Your task to perform on an android device: turn off translation in the chrome app Image 0: 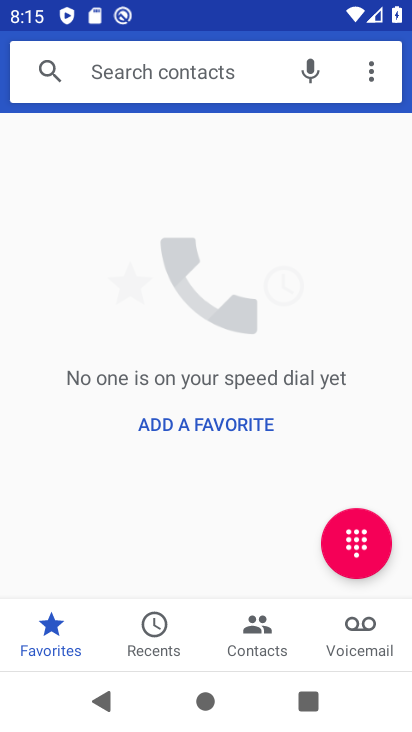
Step 0: press home button
Your task to perform on an android device: turn off translation in the chrome app Image 1: 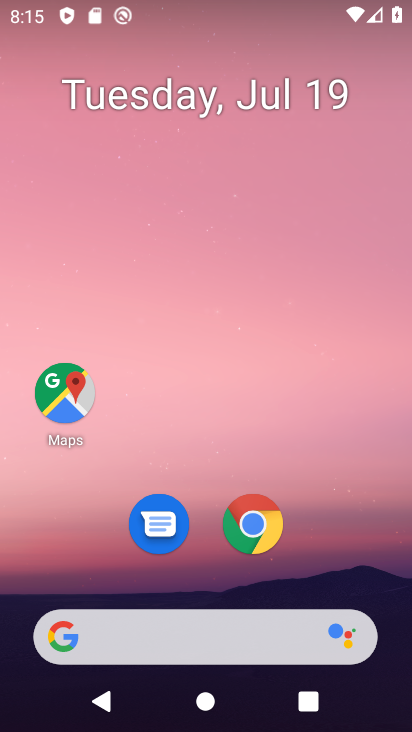
Step 1: click (251, 526)
Your task to perform on an android device: turn off translation in the chrome app Image 2: 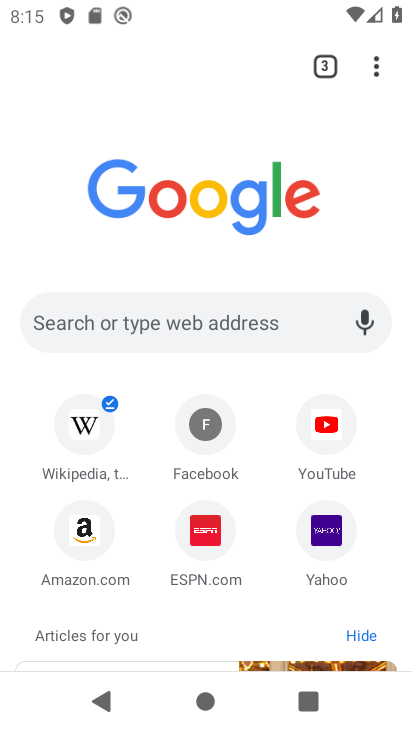
Step 2: drag from (375, 61) to (245, 559)
Your task to perform on an android device: turn off translation in the chrome app Image 3: 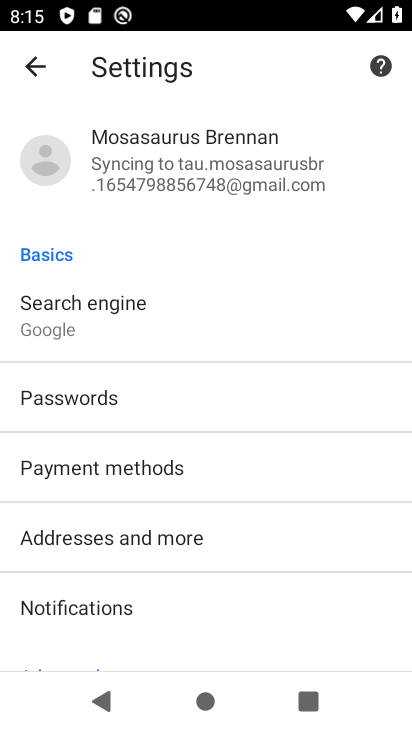
Step 3: drag from (214, 586) to (325, 222)
Your task to perform on an android device: turn off translation in the chrome app Image 4: 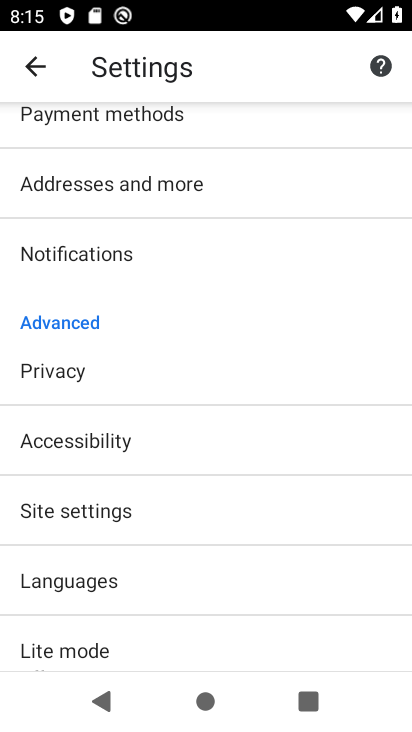
Step 4: click (126, 581)
Your task to perform on an android device: turn off translation in the chrome app Image 5: 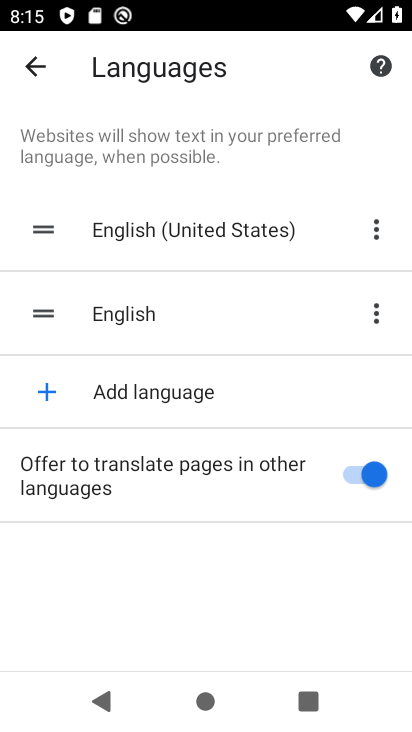
Step 5: click (348, 471)
Your task to perform on an android device: turn off translation in the chrome app Image 6: 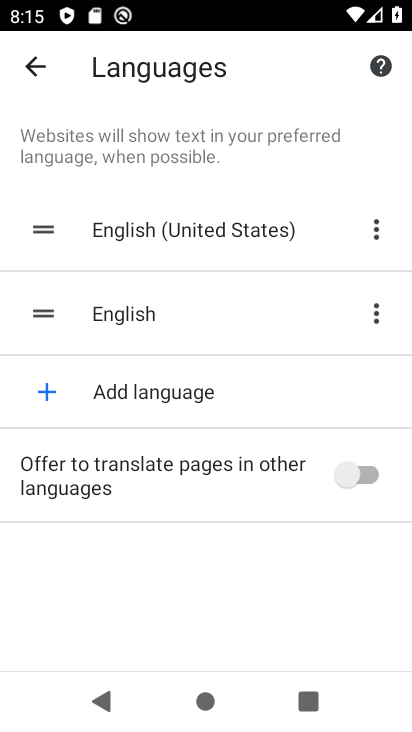
Step 6: task complete